Your task to perform on an android device: toggle show notifications on the lock screen Image 0: 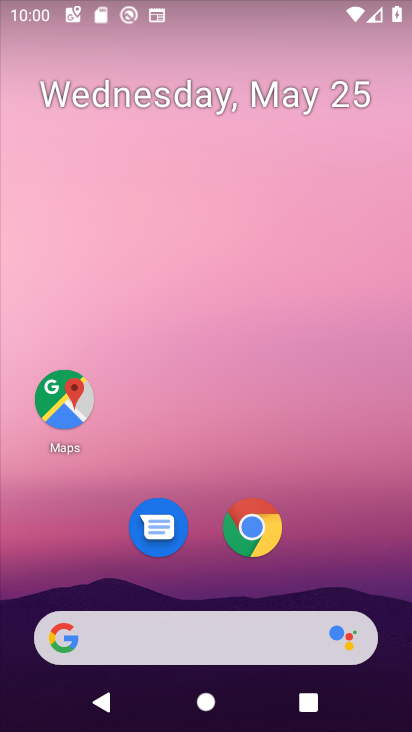
Step 0: drag from (365, 586) to (337, 141)
Your task to perform on an android device: toggle show notifications on the lock screen Image 1: 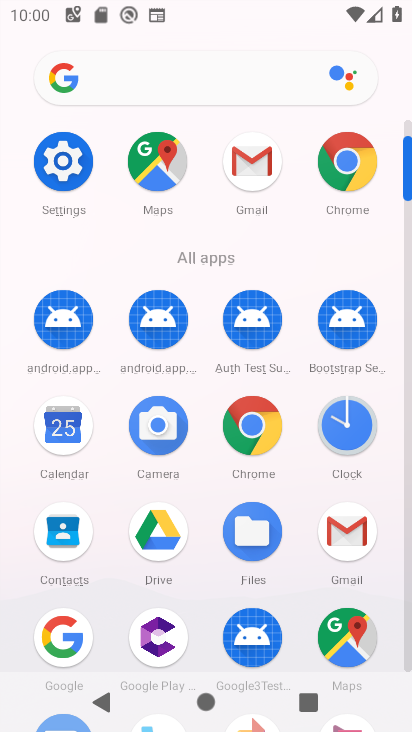
Step 1: click (58, 166)
Your task to perform on an android device: toggle show notifications on the lock screen Image 2: 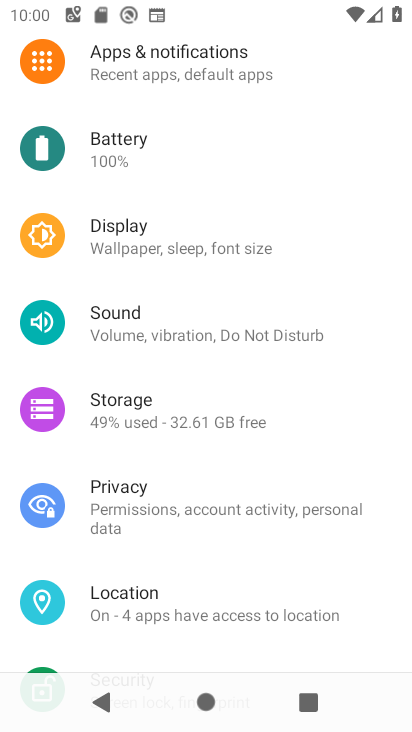
Step 2: drag from (232, 605) to (155, 667)
Your task to perform on an android device: toggle show notifications on the lock screen Image 3: 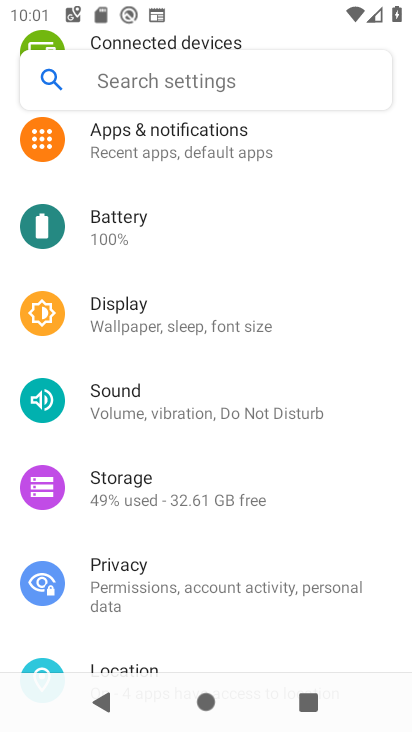
Step 3: click (122, 142)
Your task to perform on an android device: toggle show notifications on the lock screen Image 4: 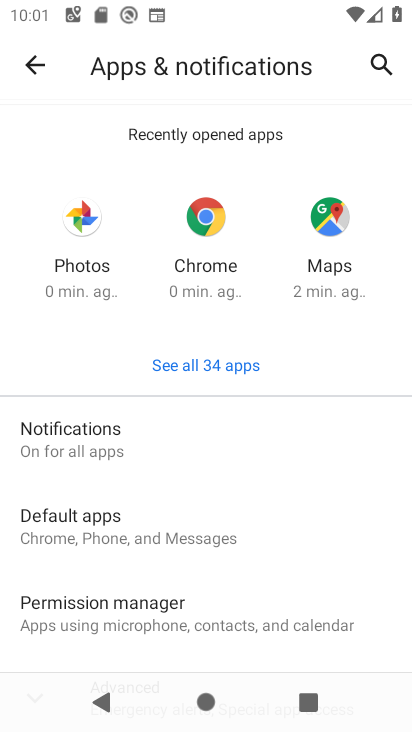
Step 4: drag from (219, 639) to (201, 480)
Your task to perform on an android device: toggle show notifications on the lock screen Image 5: 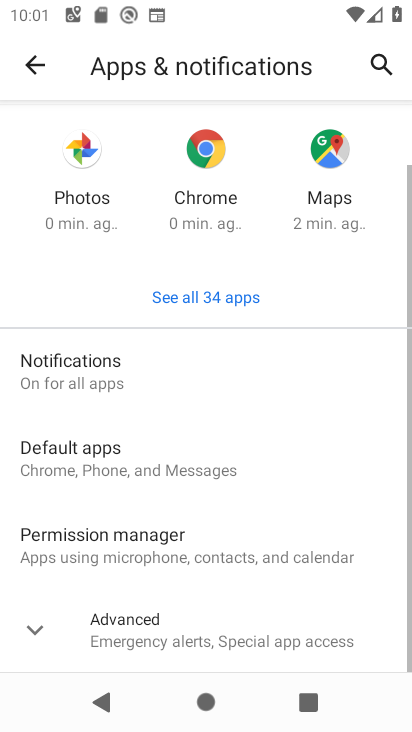
Step 5: click (156, 353)
Your task to perform on an android device: toggle show notifications on the lock screen Image 6: 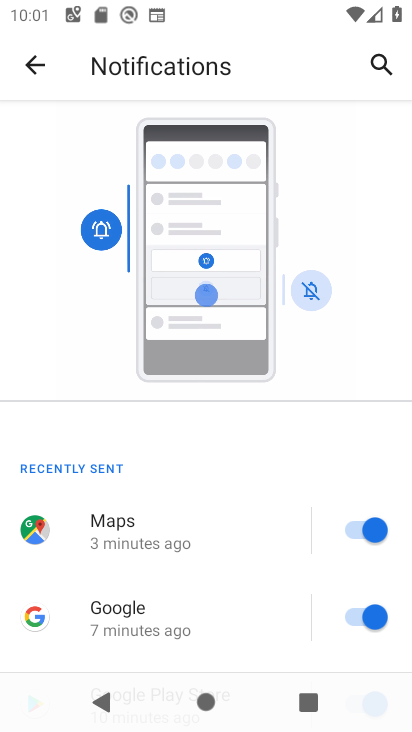
Step 6: drag from (201, 579) to (209, 168)
Your task to perform on an android device: toggle show notifications on the lock screen Image 7: 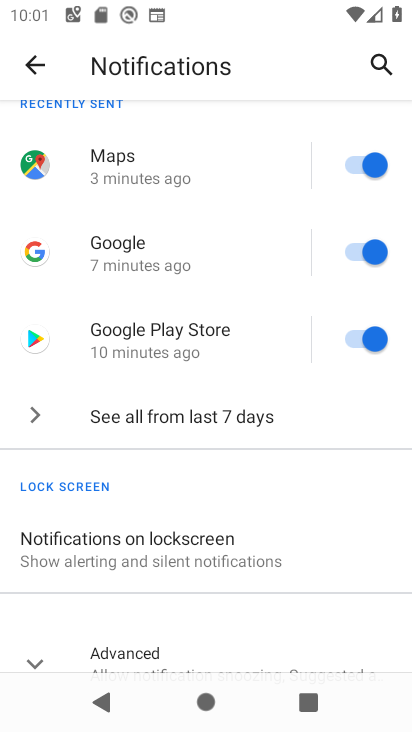
Step 7: click (201, 537)
Your task to perform on an android device: toggle show notifications on the lock screen Image 8: 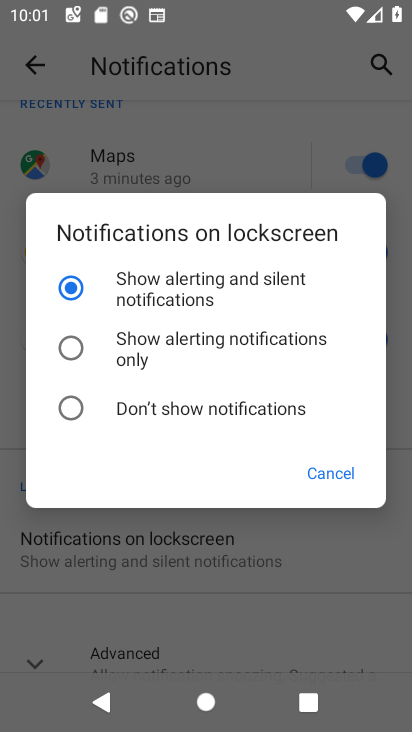
Step 8: click (166, 414)
Your task to perform on an android device: toggle show notifications on the lock screen Image 9: 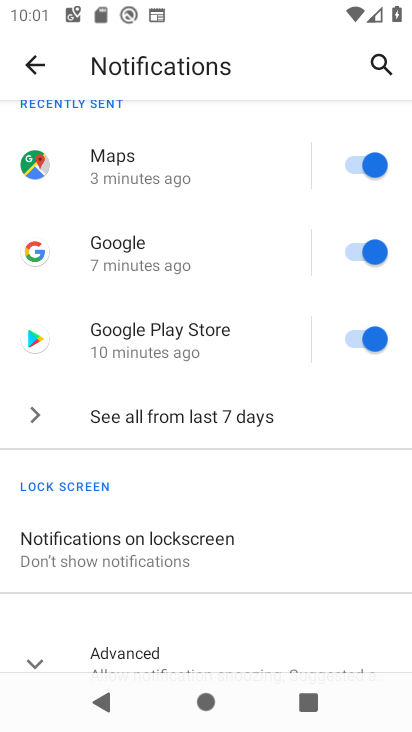
Step 9: task complete